Your task to perform on an android device: turn on showing notifications on the lock screen Image 0: 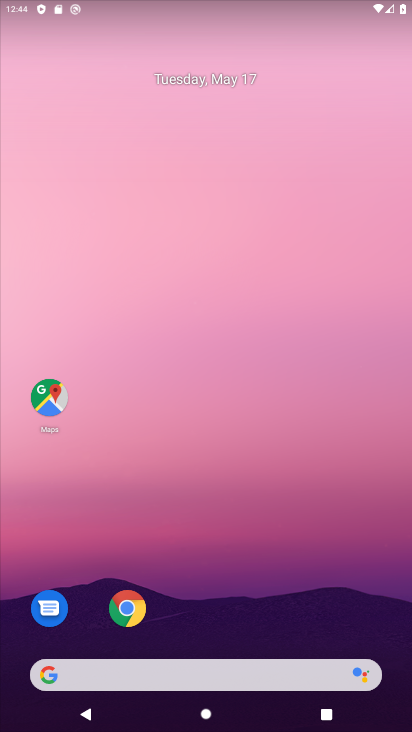
Step 0: drag from (204, 628) to (202, 189)
Your task to perform on an android device: turn on showing notifications on the lock screen Image 1: 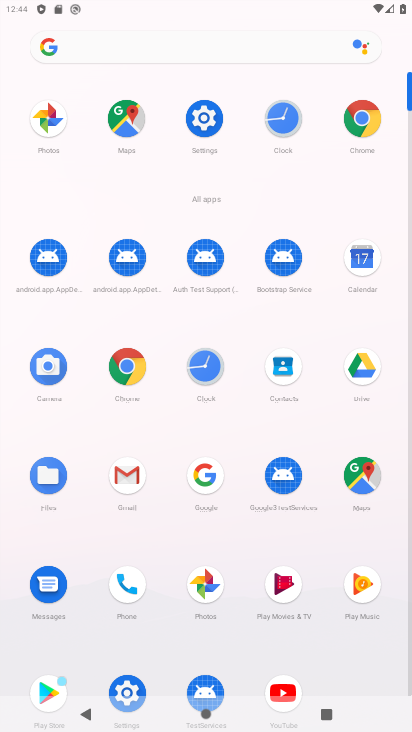
Step 1: click (183, 126)
Your task to perform on an android device: turn on showing notifications on the lock screen Image 2: 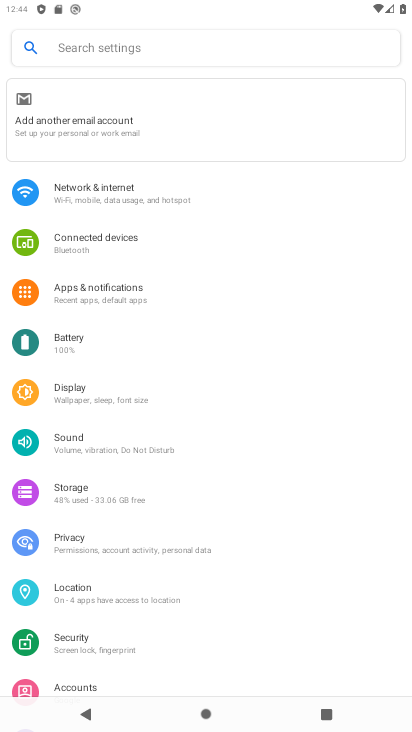
Step 2: click (154, 304)
Your task to perform on an android device: turn on showing notifications on the lock screen Image 3: 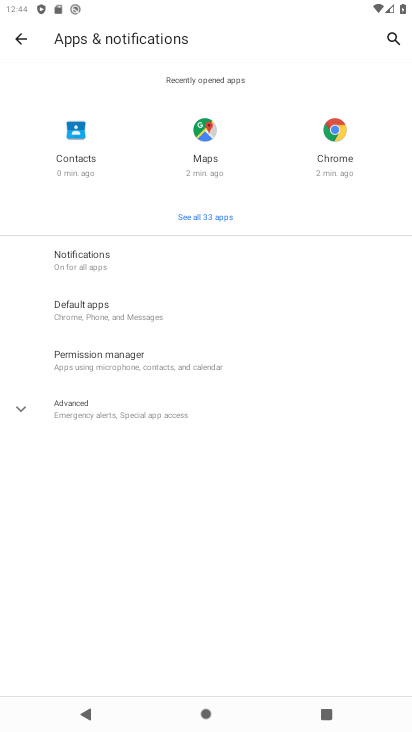
Step 3: click (119, 257)
Your task to perform on an android device: turn on showing notifications on the lock screen Image 4: 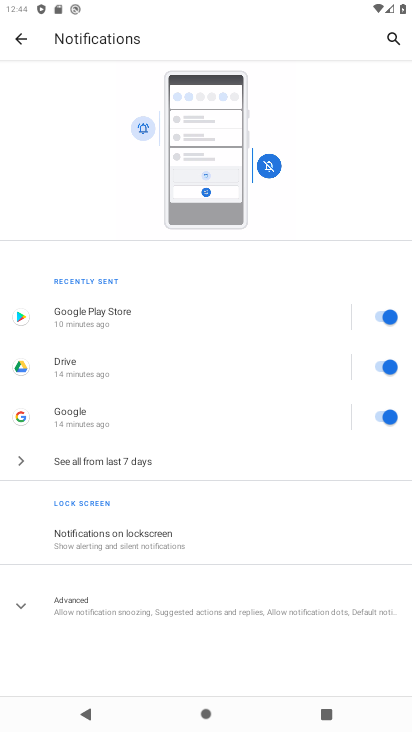
Step 4: click (172, 543)
Your task to perform on an android device: turn on showing notifications on the lock screen Image 5: 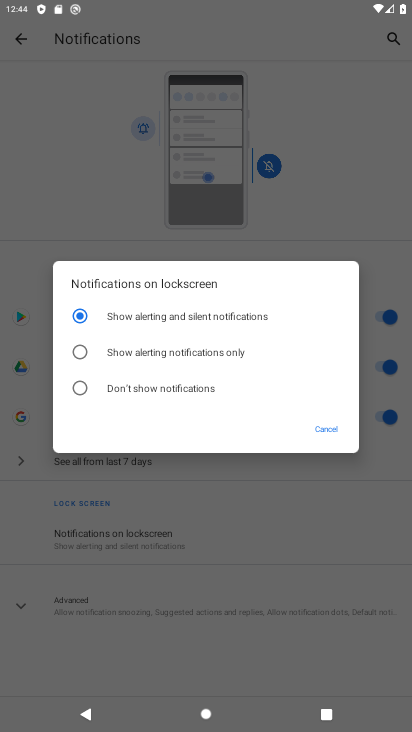
Step 5: task complete